Your task to perform on an android device: set the timer Image 0: 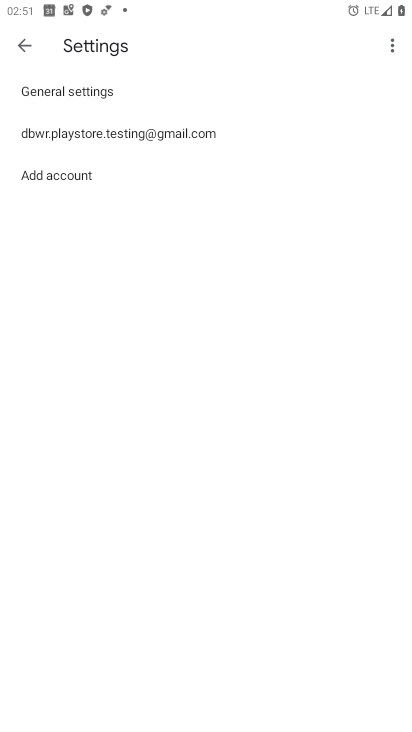
Step 0: press home button
Your task to perform on an android device: set the timer Image 1: 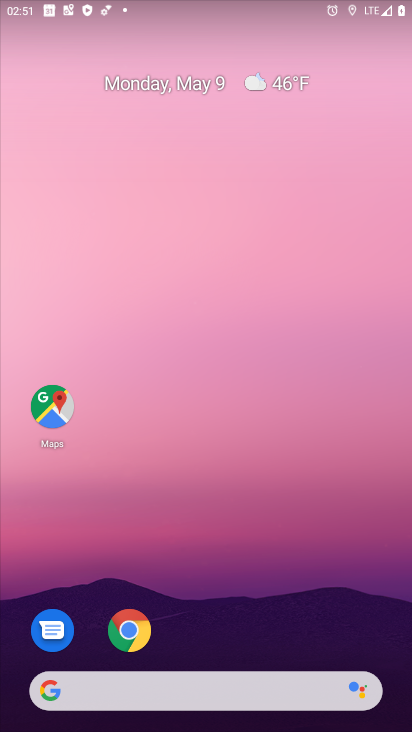
Step 1: drag from (308, 617) to (334, 85)
Your task to perform on an android device: set the timer Image 2: 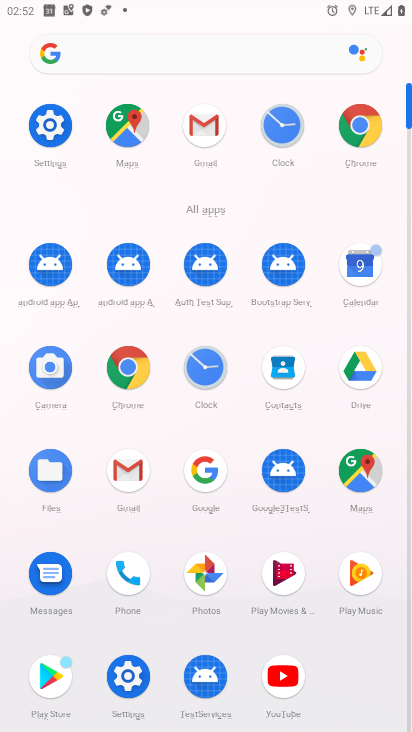
Step 2: click (290, 128)
Your task to perform on an android device: set the timer Image 3: 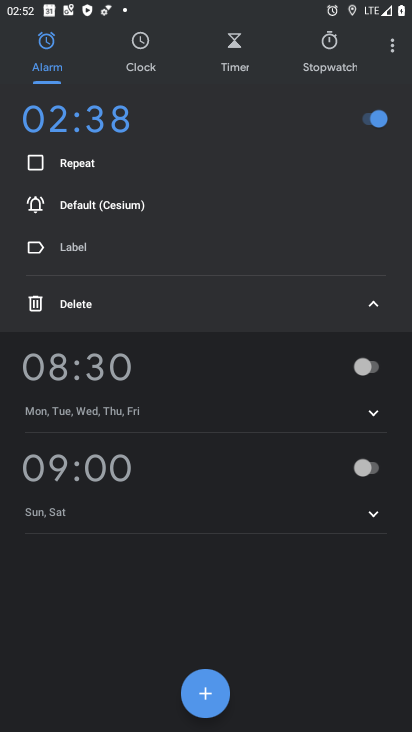
Step 3: click (245, 59)
Your task to perform on an android device: set the timer Image 4: 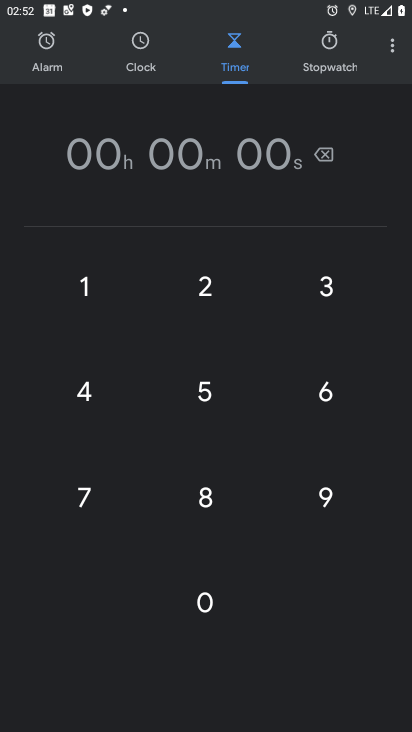
Step 4: click (194, 283)
Your task to perform on an android device: set the timer Image 5: 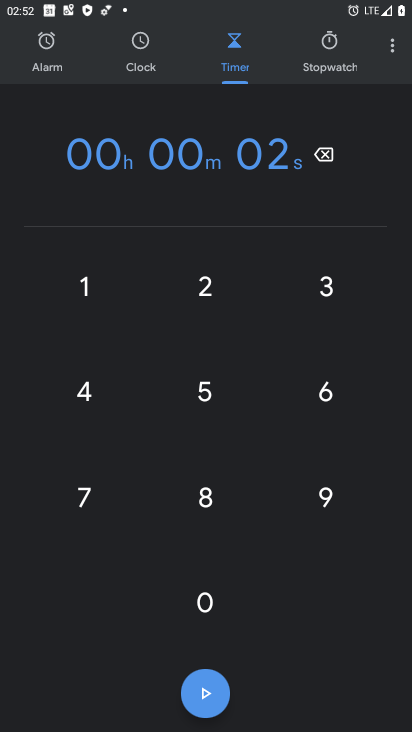
Step 5: click (208, 699)
Your task to perform on an android device: set the timer Image 6: 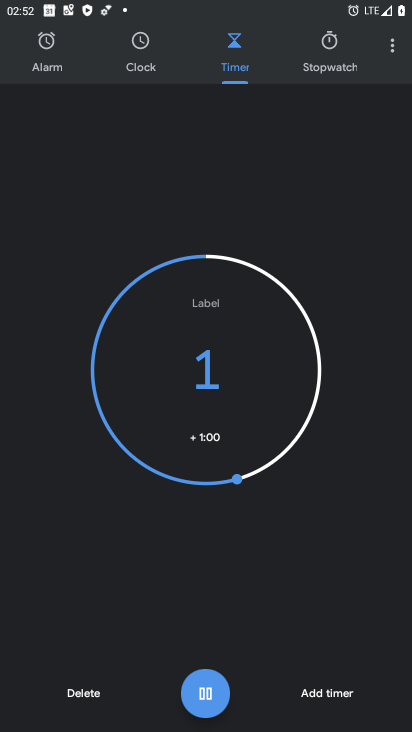
Step 6: task complete